Your task to perform on an android device: Show me the alarms in the clock app Image 0: 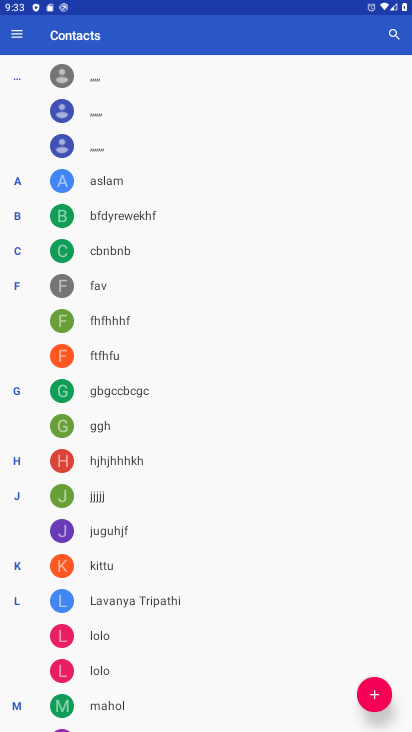
Step 0: press home button
Your task to perform on an android device: Show me the alarms in the clock app Image 1: 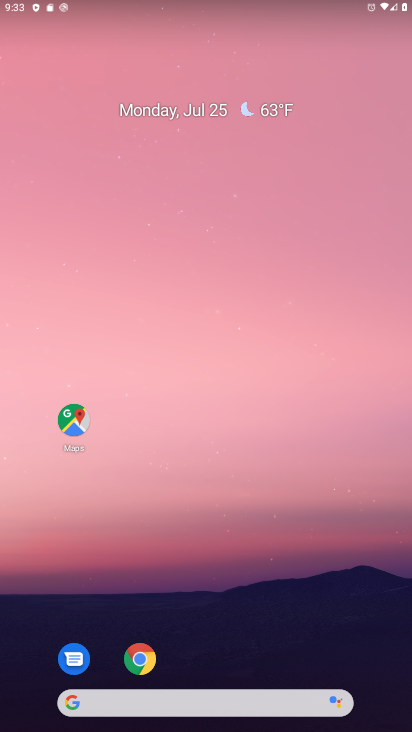
Step 1: drag from (220, 700) to (214, 147)
Your task to perform on an android device: Show me the alarms in the clock app Image 2: 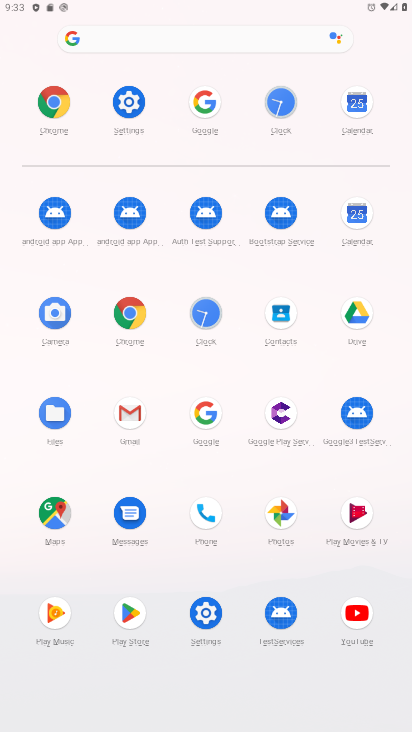
Step 2: click (206, 317)
Your task to perform on an android device: Show me the alarms in the clock app Image 3: 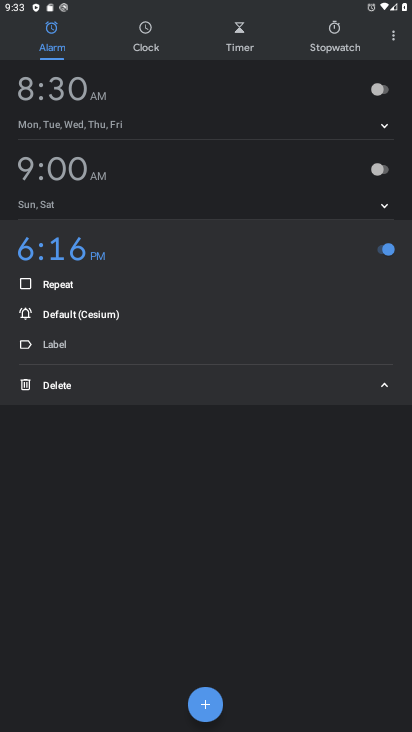
Step 3: task complete